Your task to perform on an android device: Go to location settings Image 0: 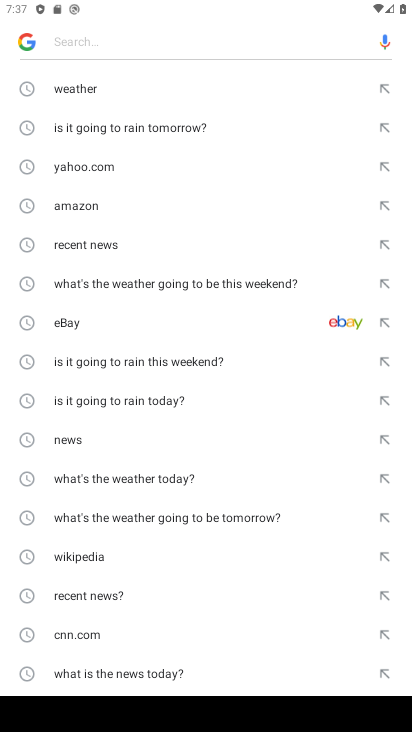
Step 0: press back button
Your task to perform on an android device: Go to location settings Image 1: 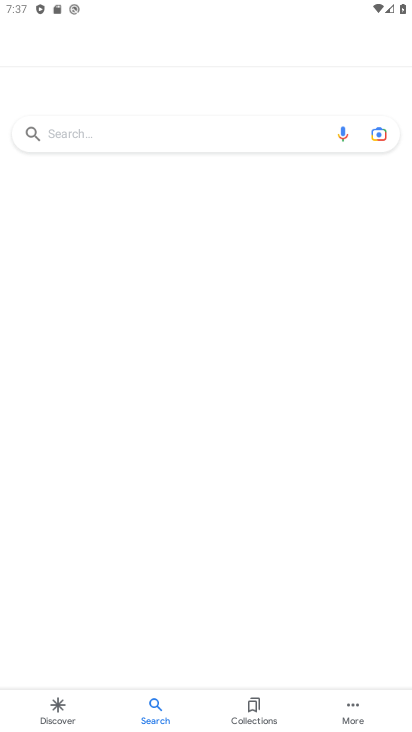
Step 1: press back button
Your task to perform on an android device: Go to location settings Image 2: 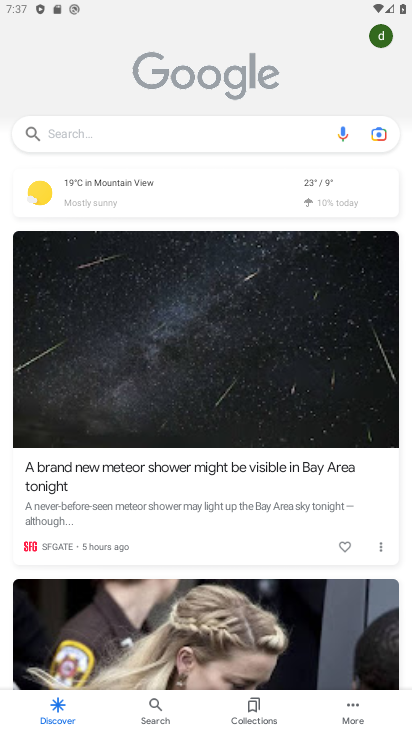
Step 2: press back button
Your task to perform on an android device: Go to location settings Image 3: 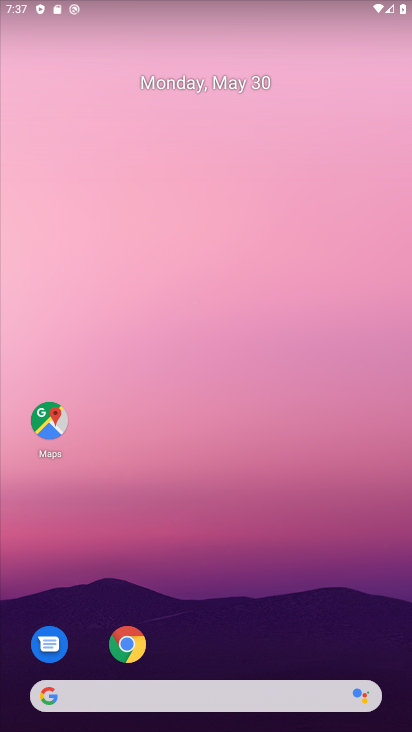
Step 3: drag from (230, 640) to (163, 168)
Your task to perform on an android device: Go to location settings Image 4: 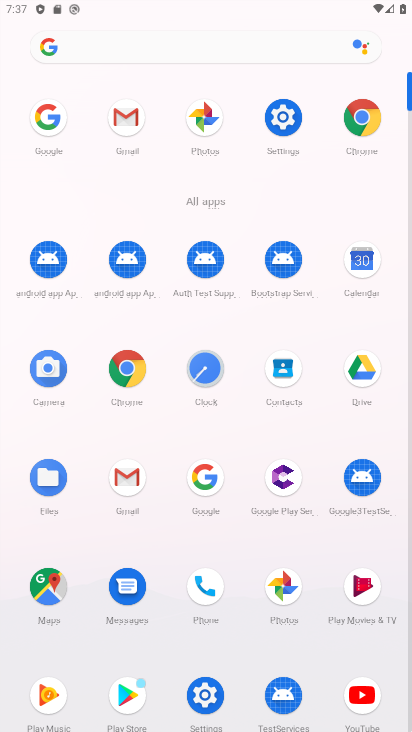
Step 4: click (284, 116)
Your task to perform on an android device: Go to location settings Image 5: 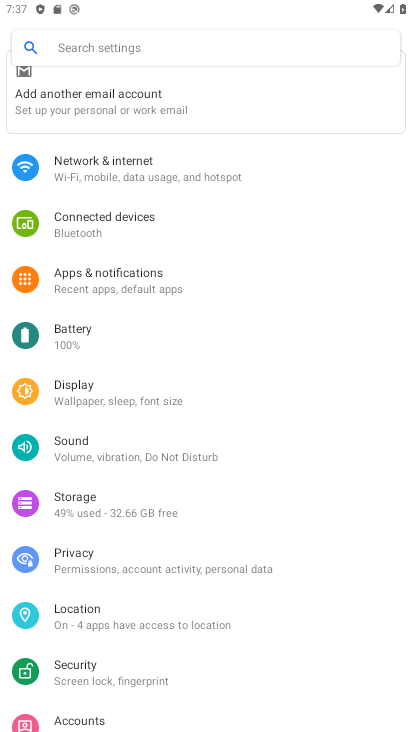
Step 5: drag from (127, 367) to (169, 282)
Your task to perform on an android device: Go to location settings Image 6: 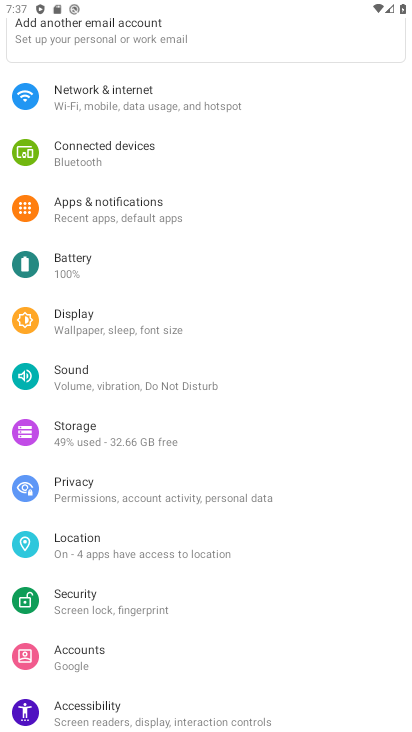
Step 6: click (165, 555)
Your task to perform on an android device: Go to location settings Image 7: 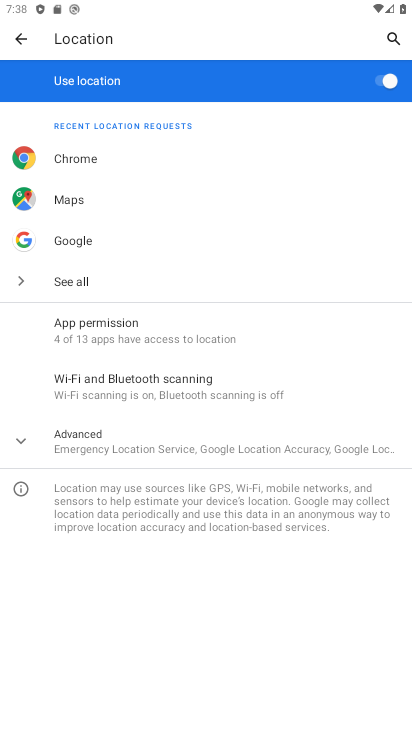
Step 7: task complete